Your task to perform on an android device: open wifi settings Image 0: 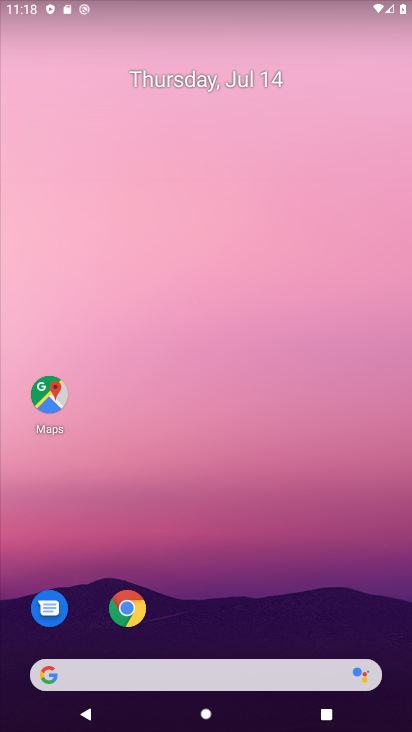
Step 0: drag from (306, 629) to (321, 246)
Your task to perform on an android device: open wifi settings Image 1: 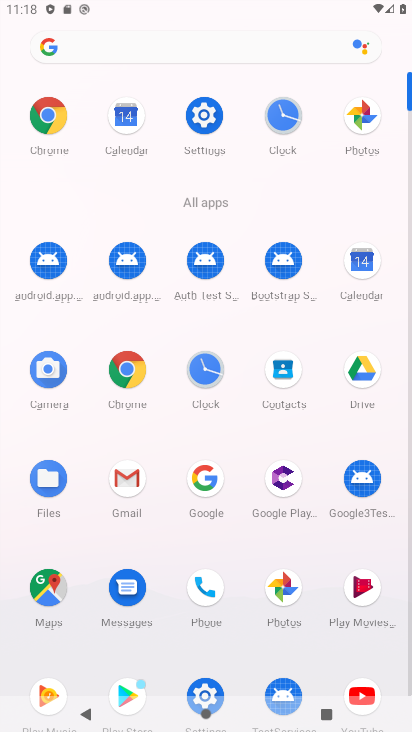
Step 1: click (180, 118)
Your task to perform on an android device: open wifi settings Image 2: 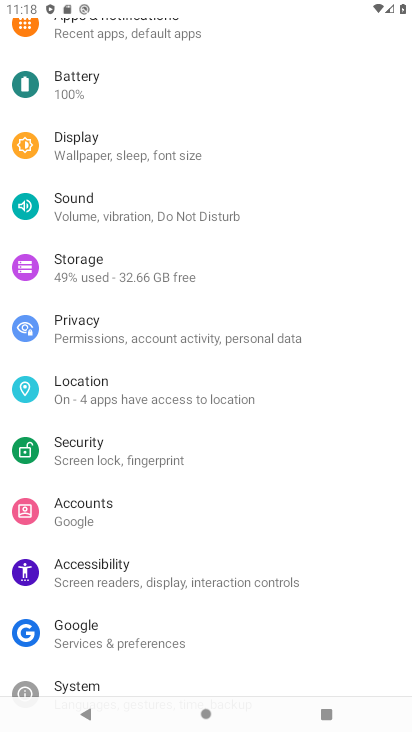
Step 2: drag from (203, 121) to (221, 546)
Your task to perform on an android device: open wifi settings Image 3: 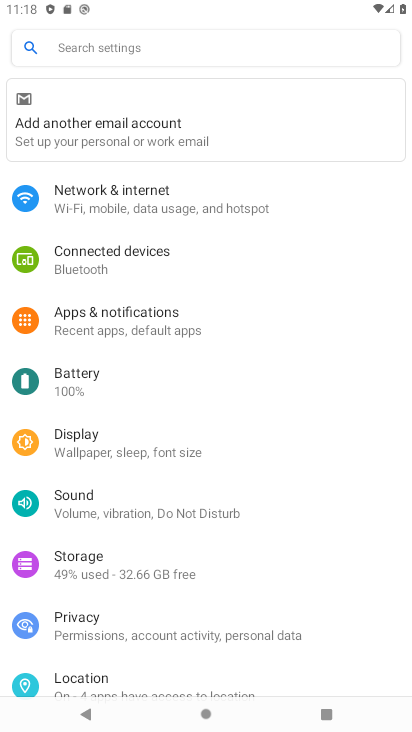
Step 3: click (209, 212)
Your task to perform on an android device: open wifi settings Image 4: 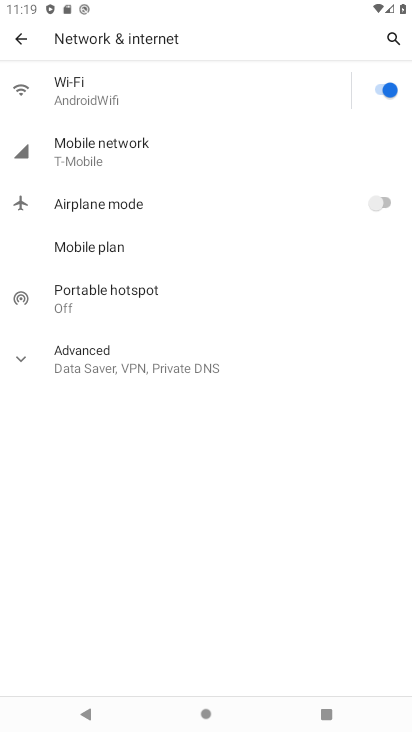
Step 4: press home button
Your task to perform on an android device: open wifi settings Image 5: 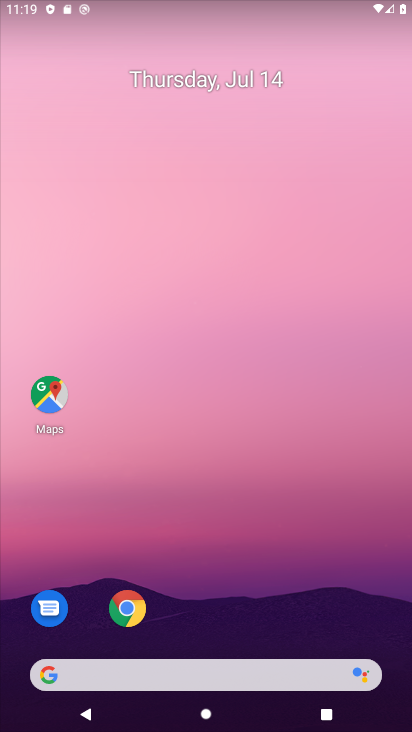
Step 5: drag from (372, 605) to (390, 194)
Your task to perform on an android device: open wifi settings Image 6: 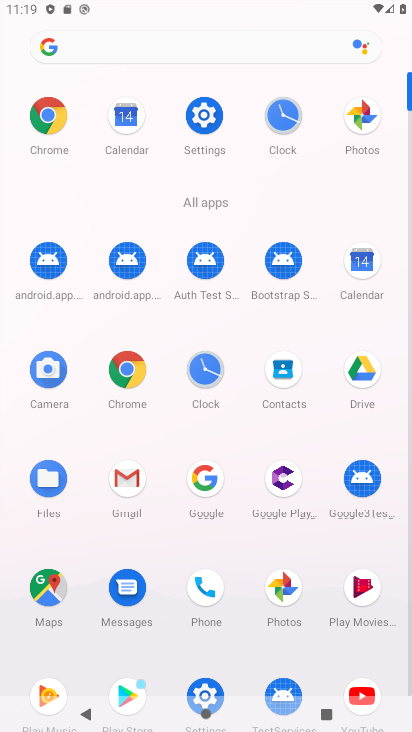
Step 6: click (206, 116)
Your task to perform on an android device: open wifi settings Image 7: 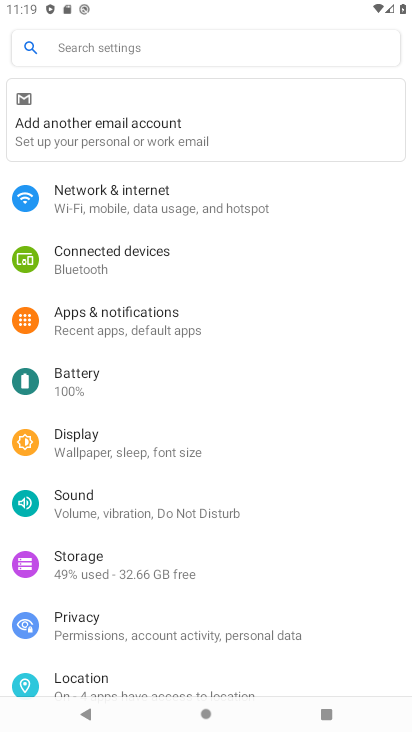
Step 7: click (218, 116)
Your task to perform on an android device: open wifi settings Image 8: 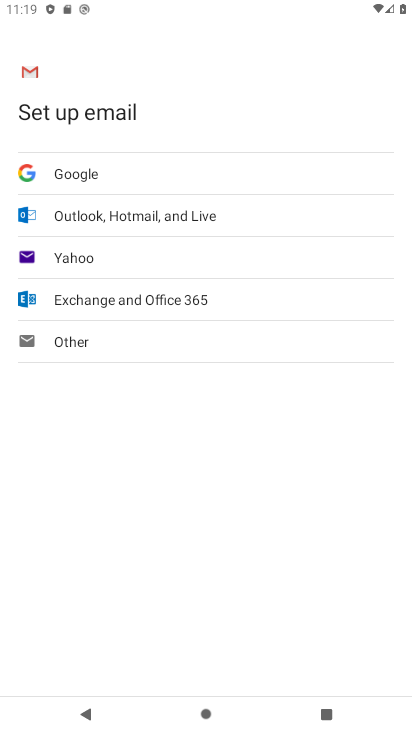
Step 8: press home button
Your task to perform on an android device: open wifi settings Image 9: 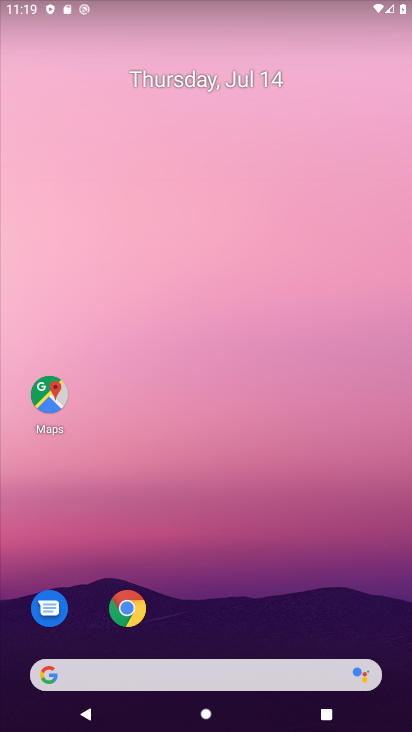
Step 9: drag from (244, 679) to (318, 197)
Your task to perform on an android device: open wifi settings Image 10: 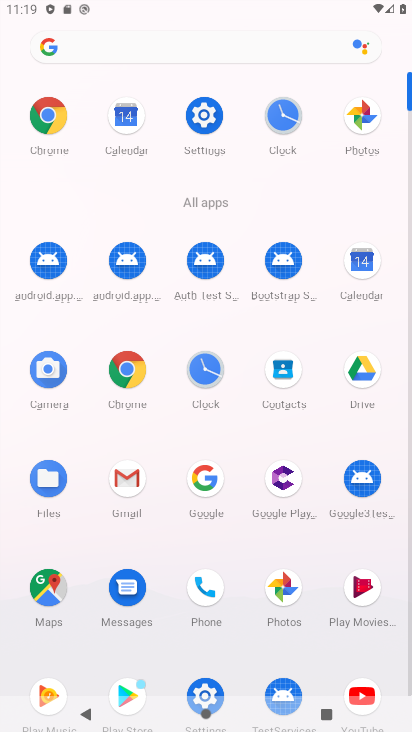
Step 10: click (225, 126)
Your task to perform on an android device: open wifi settings Image 11: 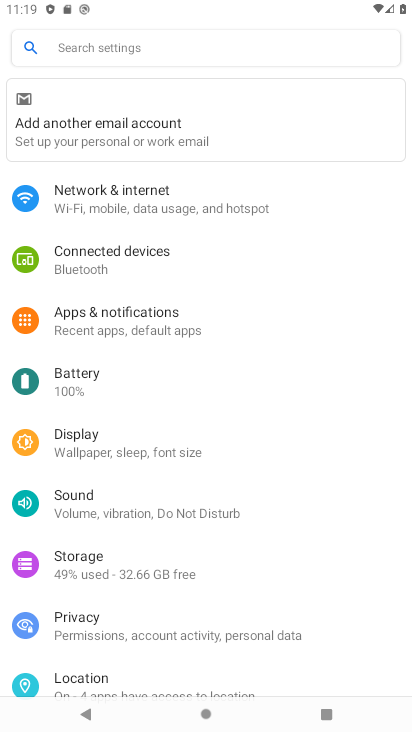
Step 11: press home button
Your task to perform on an android device: open wifi settings Image 12: 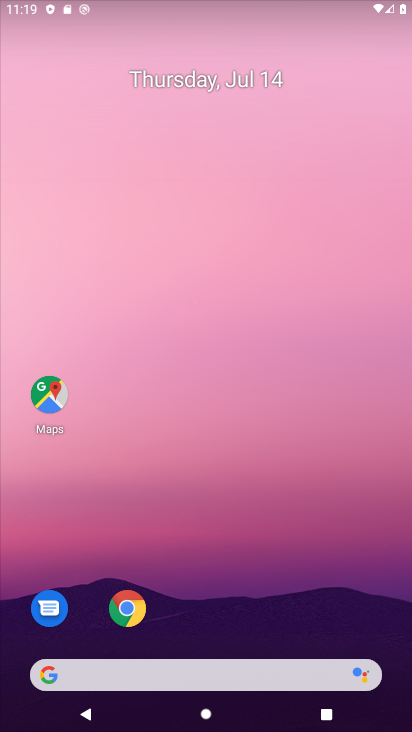
Step 12: drag from (249, 689) to (266, 279)
Your task to perform on an android device: open wifi settings Image 13: 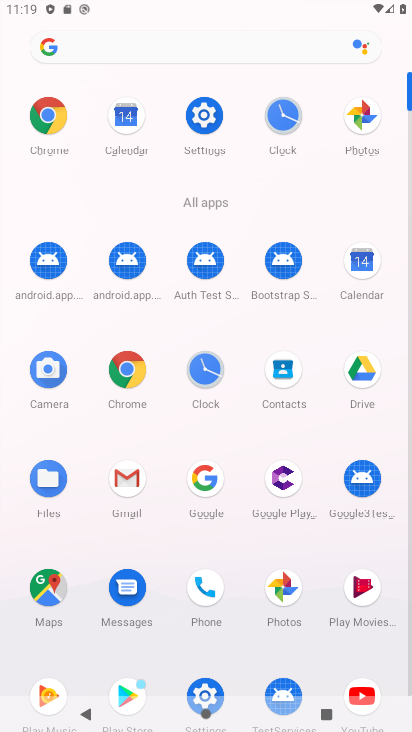
Step 13: click (209, 128)
Your task to perform on an android device: open wifi settings Image 14: 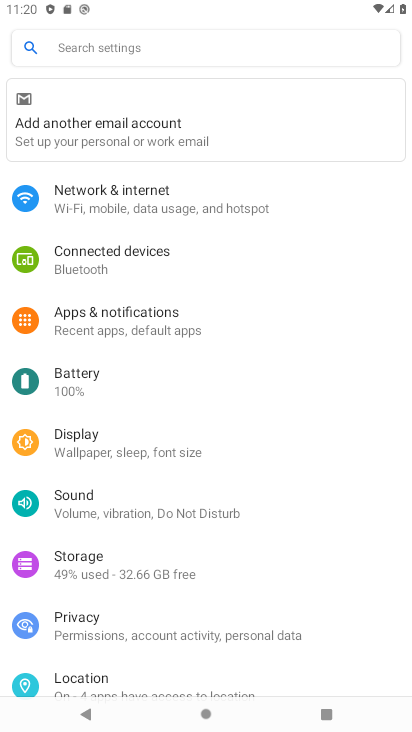
Step 14: click (213, 206)
Your task to perform on an android device: open wifi settings Image 15: 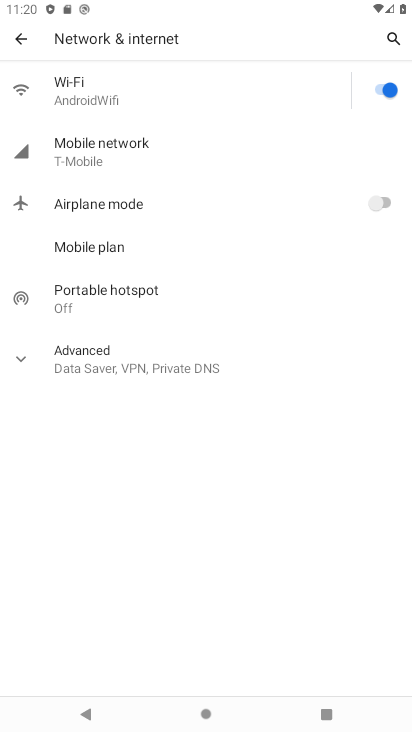
Step 15: task complete